Your task to perform on an android device: change your default location settings in chrome Image 0: 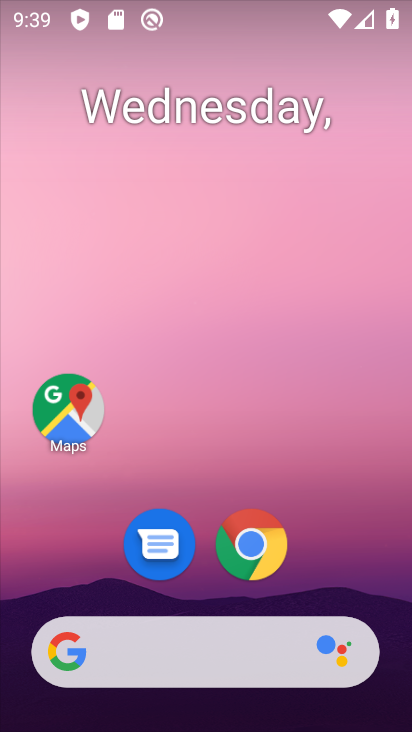
Step 0: click (255, 544)
Your task to perform on an android device: change your default location settings in chrome Image 1: 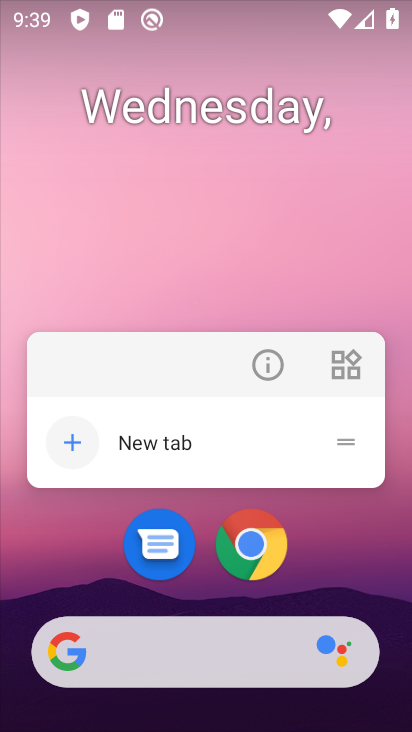
Step 1: click (255, 544)
Your task to perform on an android device: change your default location settings in chrome Image 2: 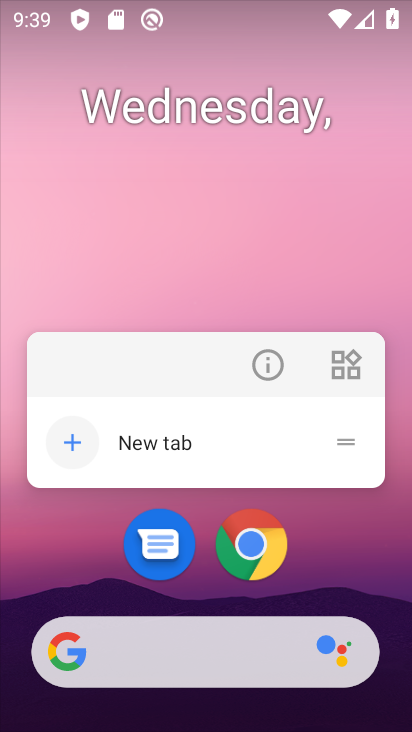
Step 2: click (250, 554)
Your task to perform on an android device: change your default location settings in chrome Image 3: 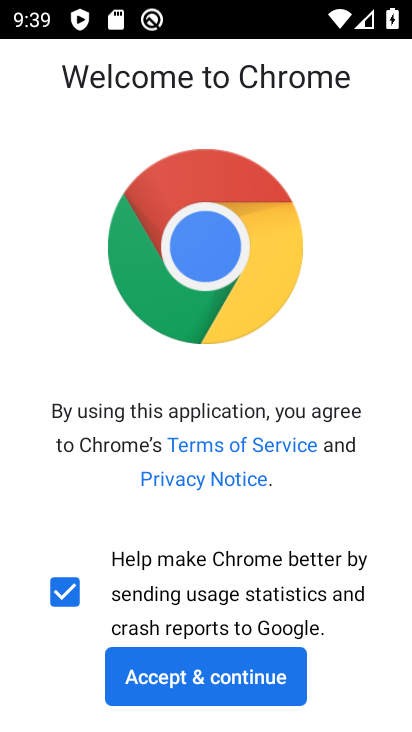
Step 3: click (230, 677)
Your task to perform on an android device: change your default location settings in chrome Image 4: 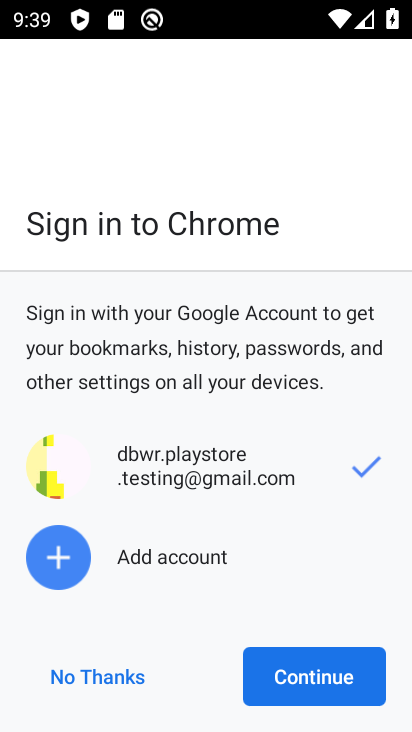
Step 4: click (123, 683)
Your task to perform on an android device: change your default location settings in chrome Image 5: 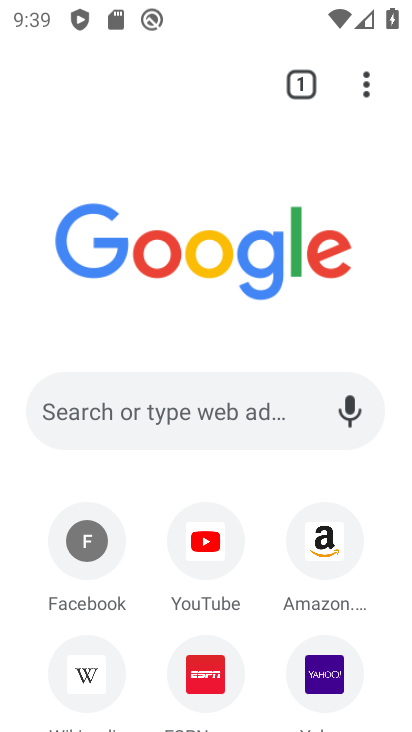
Step 5: click (366, 85)
Your task to perform on an android device: change your default location settings in chrome Image 6: 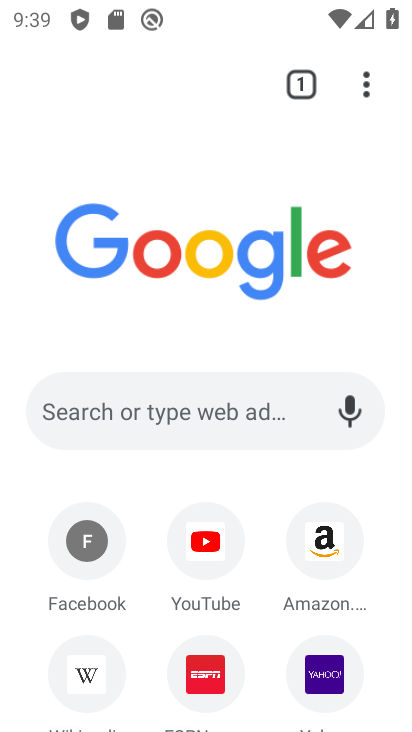
Step 6: click (370, 83)
Your task to perform on an android device: change your default location settings in chrome Image 7: 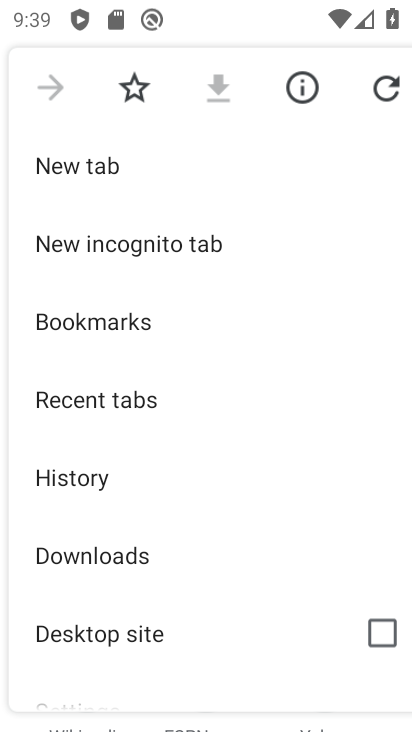
Step 7: drag from (179, 618) to (174, 267)
Your task to perform on an android device: change your default location settings in chrome Image 8: 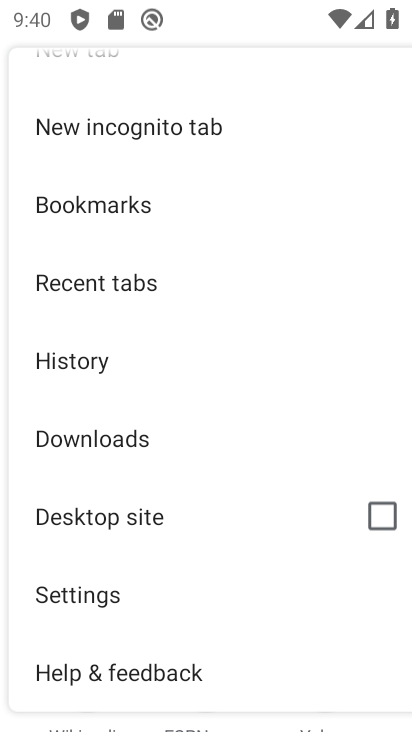
Step 8: click (71, 597)
Your task to perform on an android device: change your default location settings in chrome Image 9: 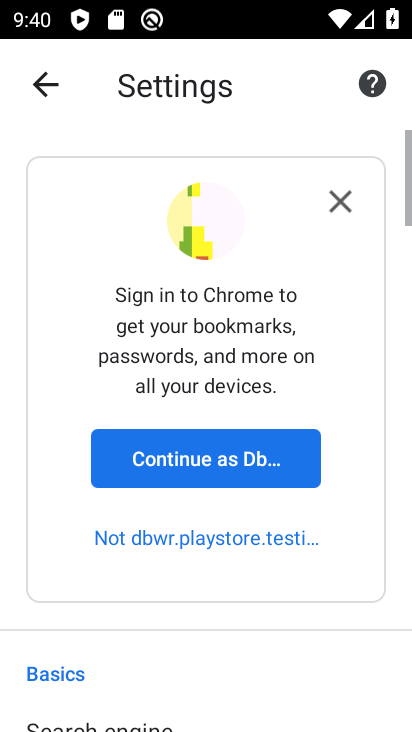
Step 9: drag from (231, 605) to (216, 261)
Your task to perform on an android device: change your default location settings in chrome Image 10: 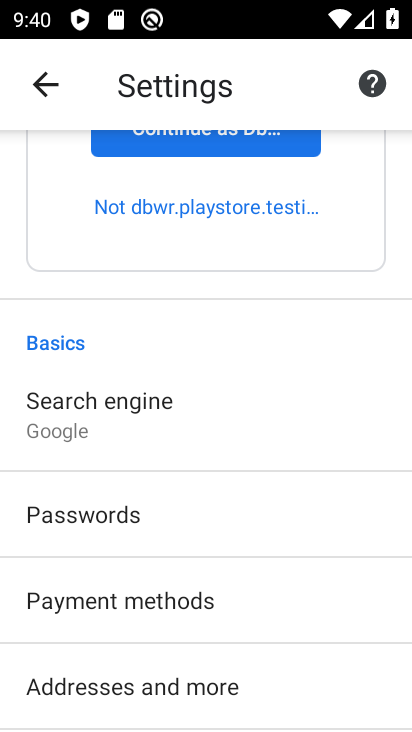
Step 10: drag from (216, 534) to (196, 267)
Your task to perform on an android device: change your default location settings in chrome Image 11: 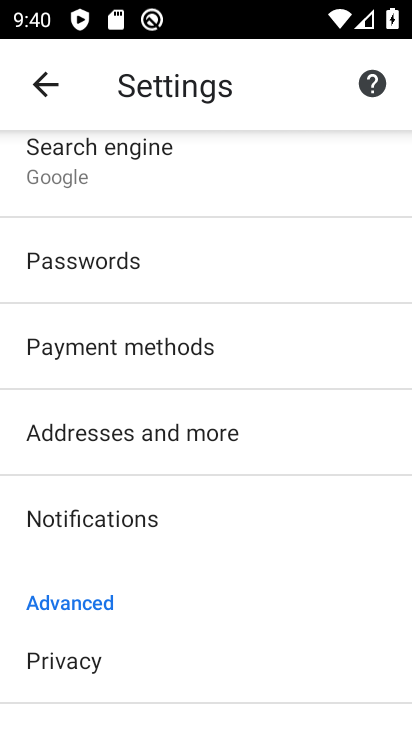
Step 11: drag from (209, 572) to (195, 253)
Your task to perform on an android device: change your default location settings in chrome Image 12: 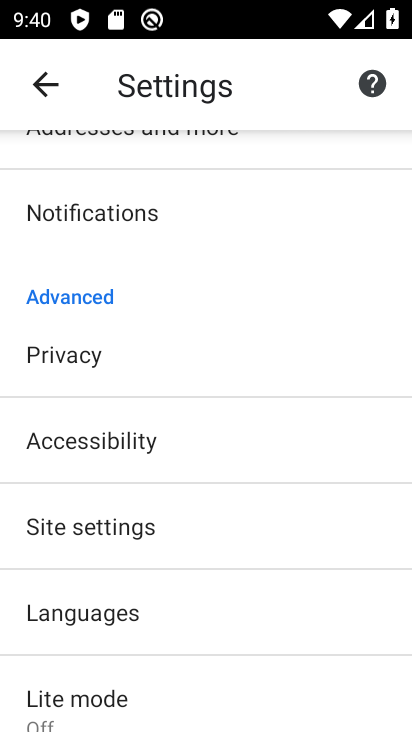
Step 12: click (71, 542)
Your task to perform on an android device: change your default location settings in chrome Image 13: 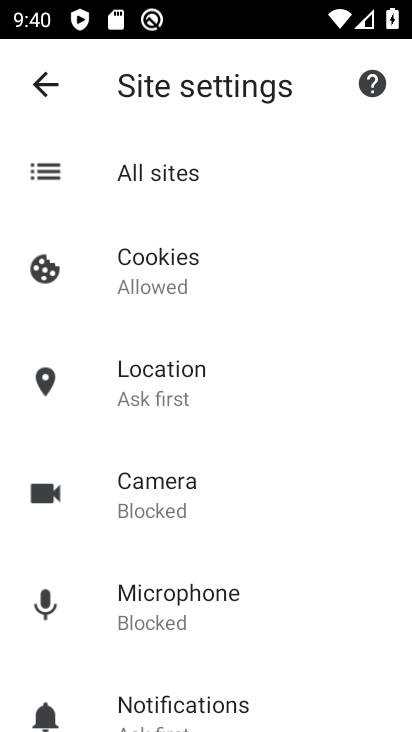
Step 13: click (142, 407)
Your task to perform on an android device: change your default location settings in chrome Image 14: 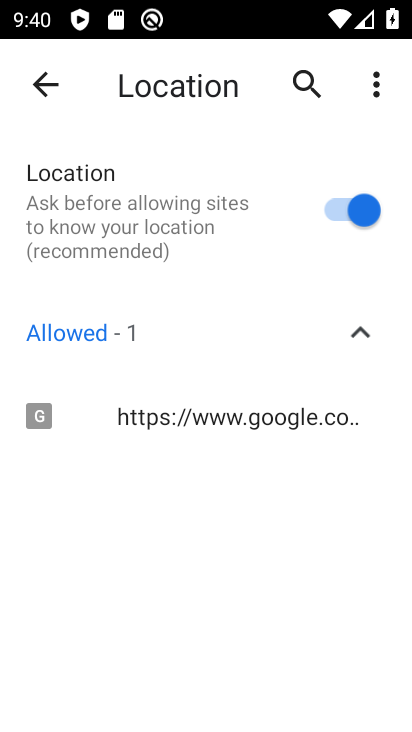
Step 14: click (335, 218)
Your task to perform on an android device: change your default location settings in chrome Image 15: 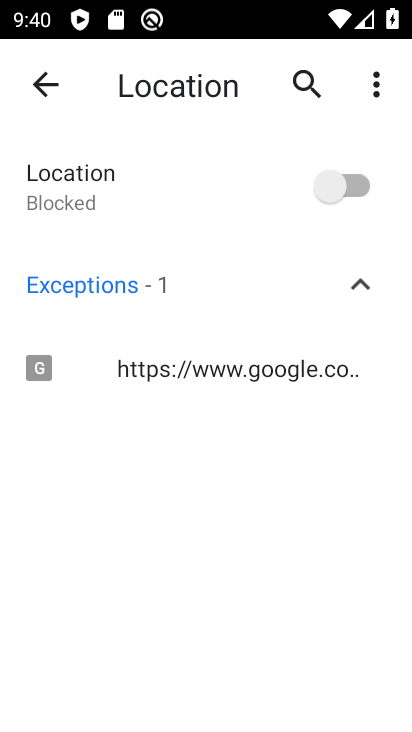
Step 15: task complete